Your task to perform on an android device: Go to Wikipedia Image 0: 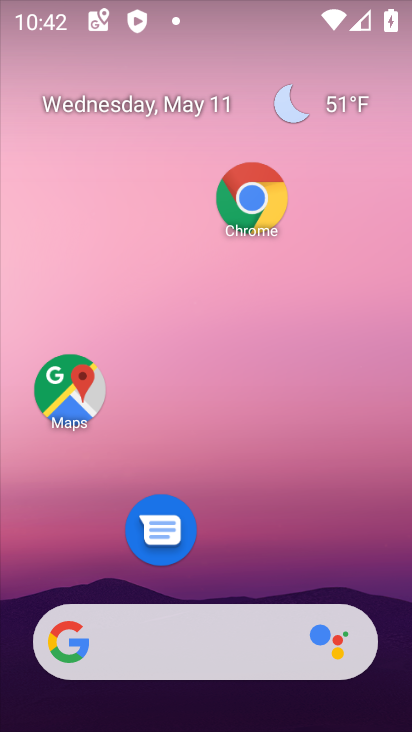
Step 0: drag from (294, 564) to (351, 253)
Your task to perform on an android device: Go to Wikipedia Image 1: 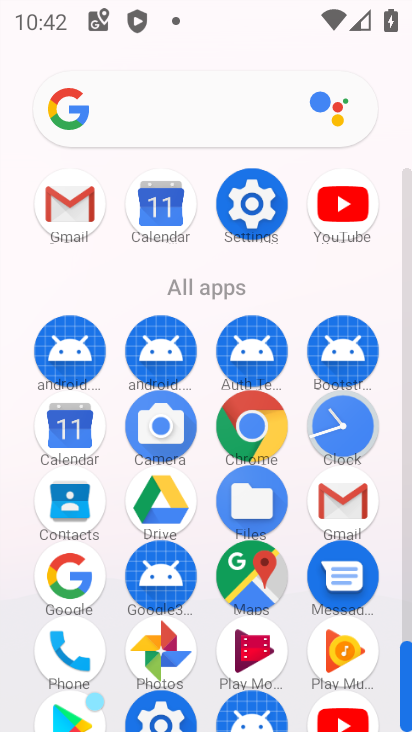
Step 1: click (251, 439)
Your task to perform on an android device: Go to Wikipedia Image 2: 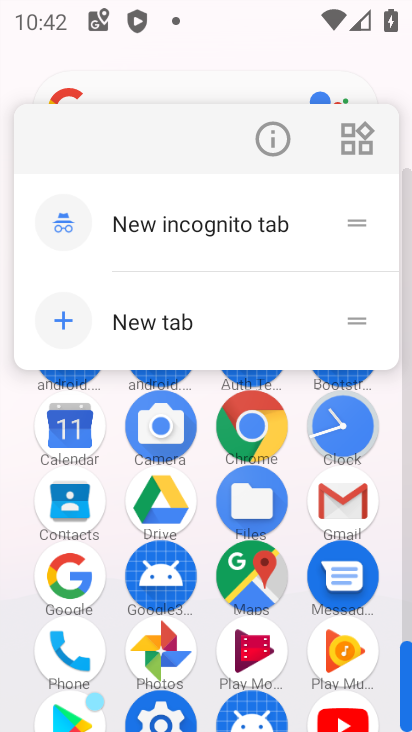
Step 2: click (257, 431)
Your task to perform on an android device: Go to Wikipedia Image 3: 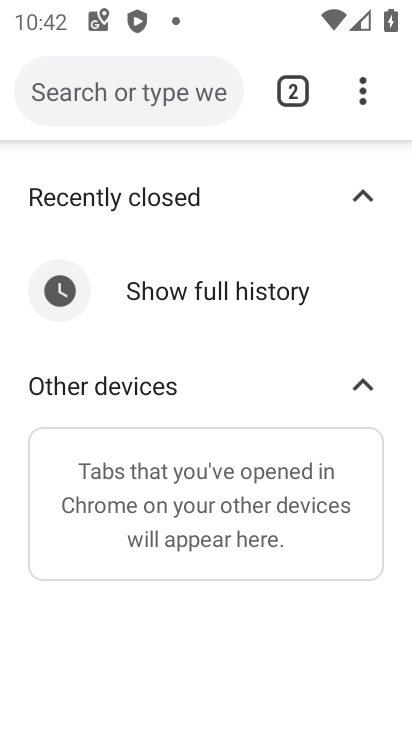
Step 3: click (364, 93)
Your task to perform on an android device: Go to Wikipedia Image 4: 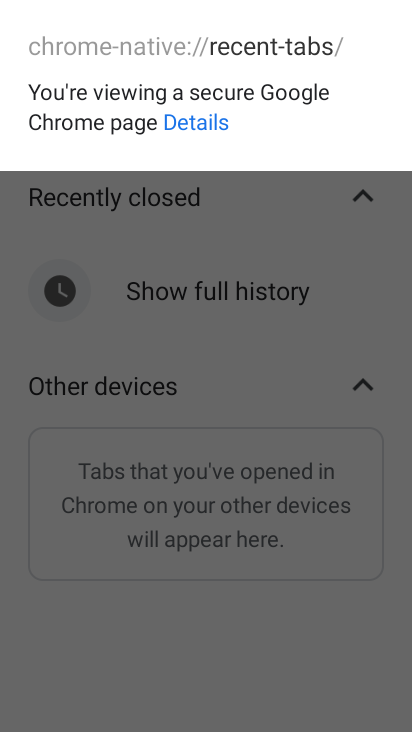
Step 4: click (278, 209)
Your task to perform on an android device: Go to Wikipedia Image 5: 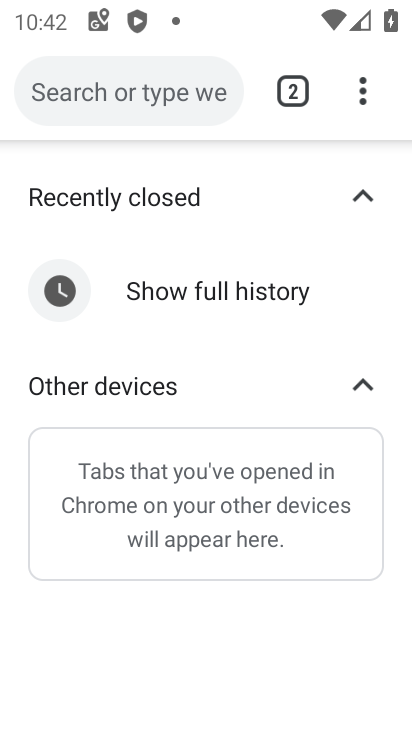
Step 5: click (290, 95)
Your task to perform on an android device: Go to Wikipedia Image 6: 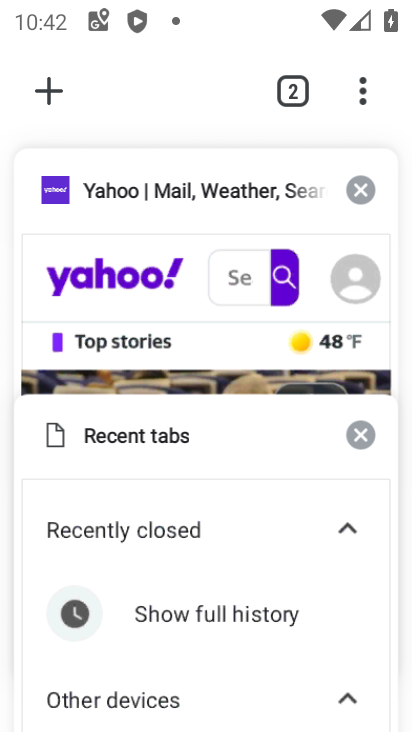
Step 6: click (362, 446)
Your task to perform on an android device: Go to Wikipedia Image 7: 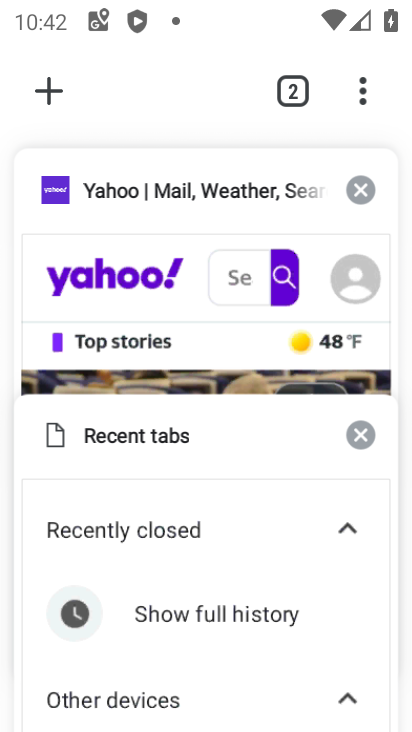
Step 7: click (361, 193)
Your task to perform on an android device: Go to Wikipedia Image 8: 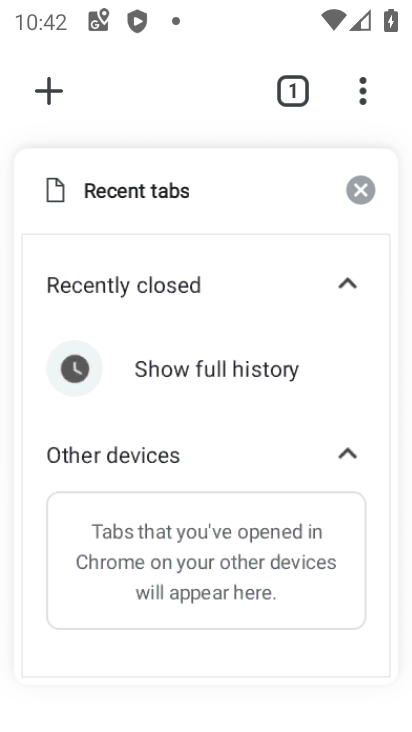
Step 8: click (42, 100)
Your task to perform on an android device: Go to Wikipedia Image 9: 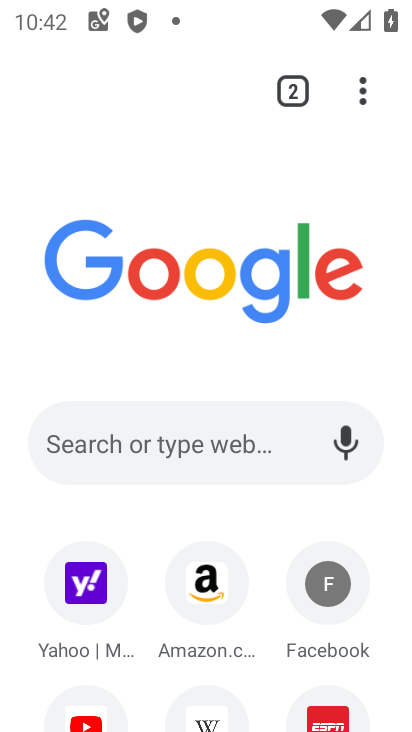
Step 9: drag from (289, 575) to (315, 260)
Your task to perform on an android device: Go to Wikipedia Image 10: 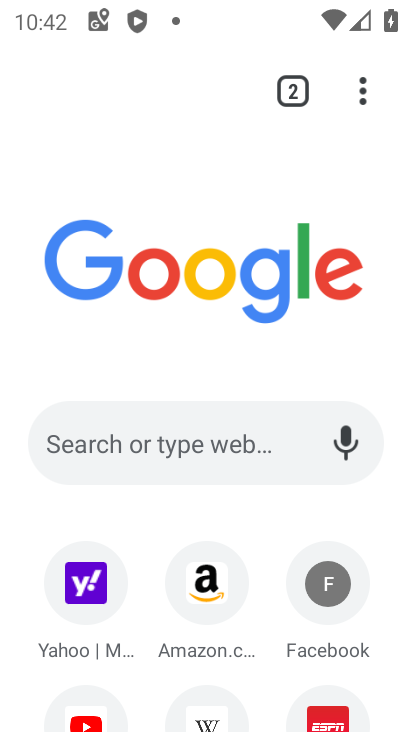
Step 10: click (207, 714)
Your task to perform on an android device: Go to Wikipedia Image 11: 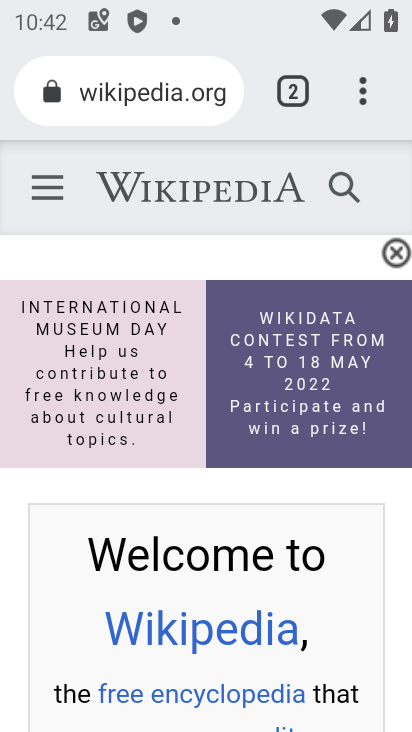
Step 11: task complete